Your task to perform on an android device: Show me popular games on the Play Store Image 0: 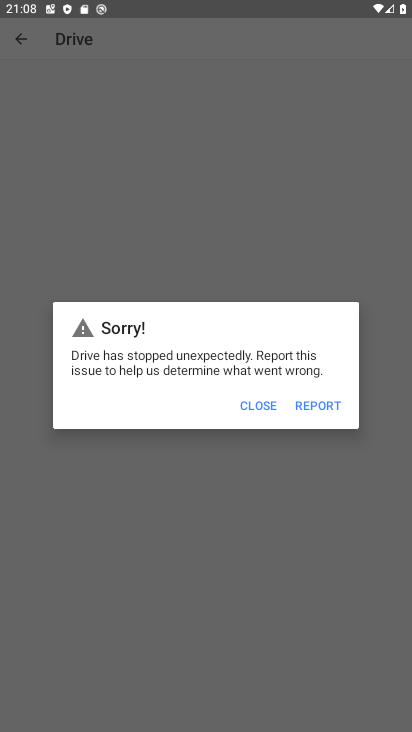
Step 0: press back button
Your task to perform on an android device: Show me popular games on the Play Store Image 1: 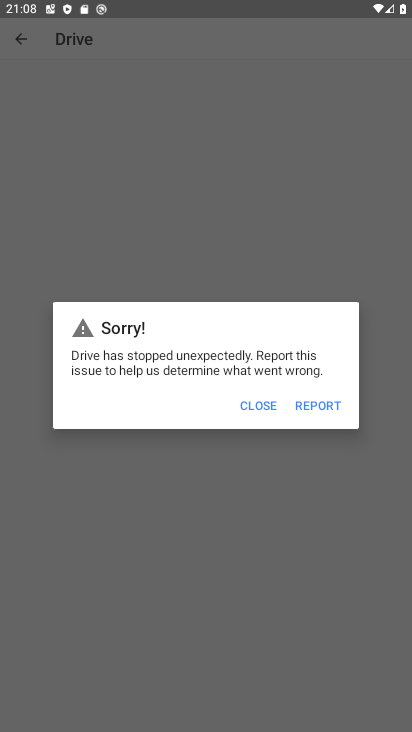
Step 1: press home button
Your task to perform on an android device: Show me popular games on the Play Store Image 2: 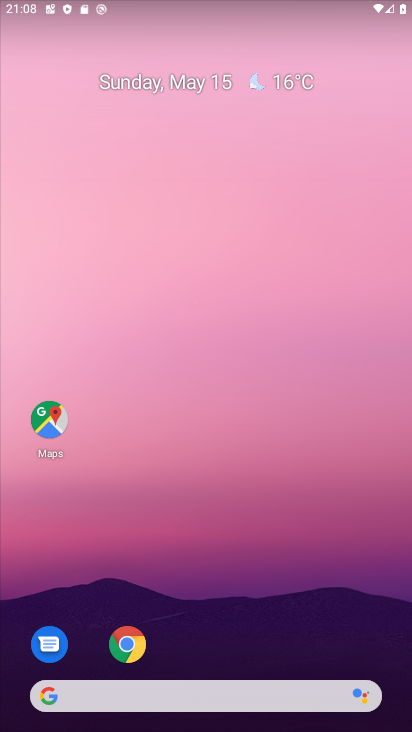
Step 2: drag from (220, 619) to (296, 48)
Your task to perform on an android device: Show me popular games on the Play Store Image 3: 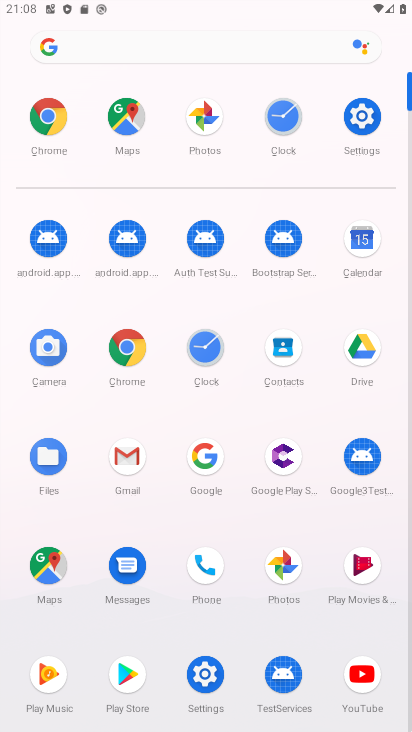
Step 3: click (128, 687)
Your task to perform on an android device: Show me popular games on the Play Store Image 4: 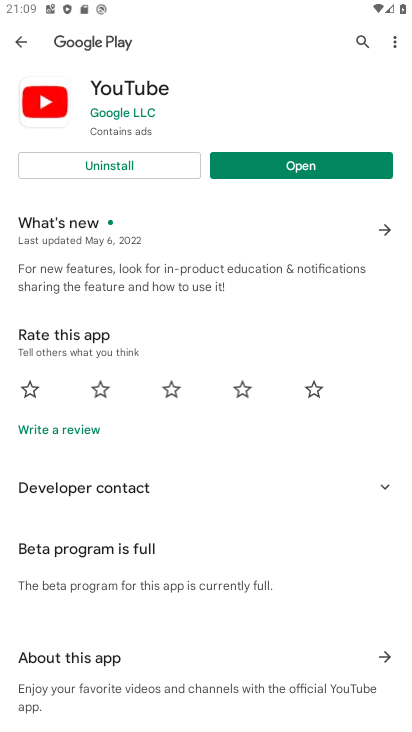
Step 4: click (18, 34)
Your task to perform on an android device: Show me popular games on the Play Store Image 5: 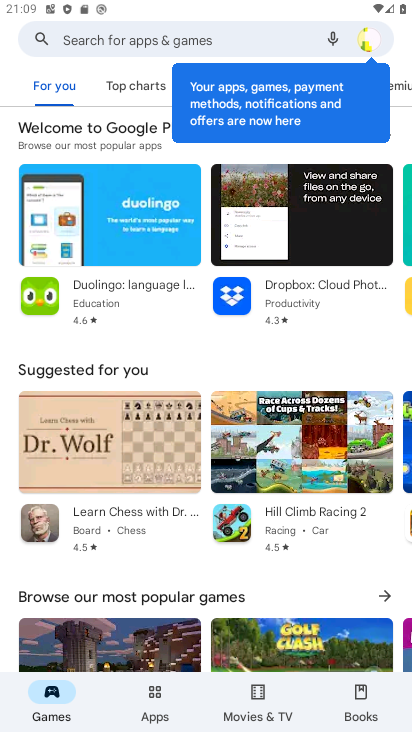
Step 5: click (386, 592)
Your task to perform on an android device: Show me popular games on the Play Store Image 6: 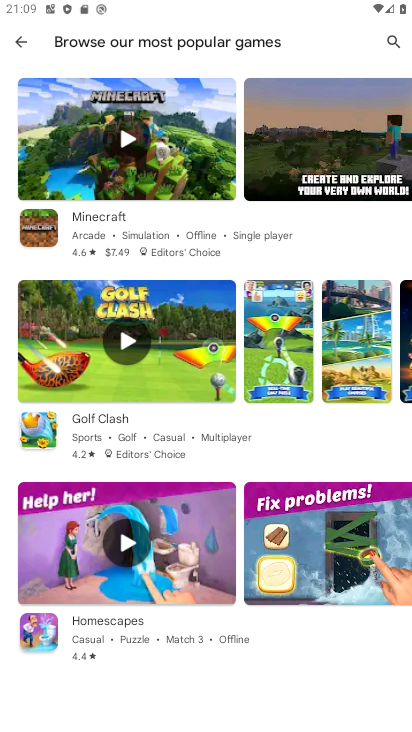
Step 6: task complete